Your task to perform on an android device: Go to Maps Image 0: 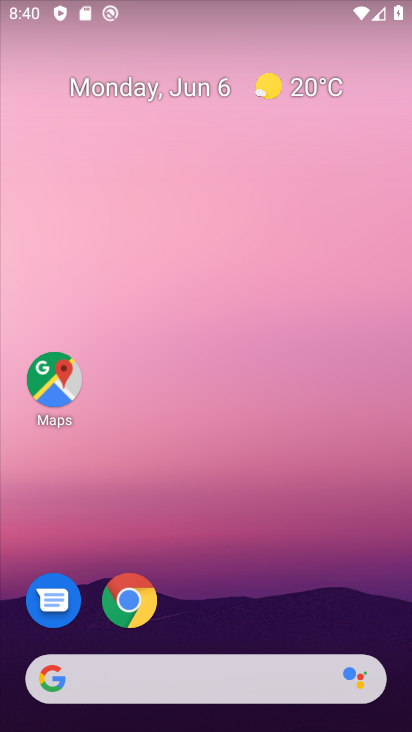
Step 0: click (75, 386)
Your task to perform on an android device: Go to Maps Image 1: 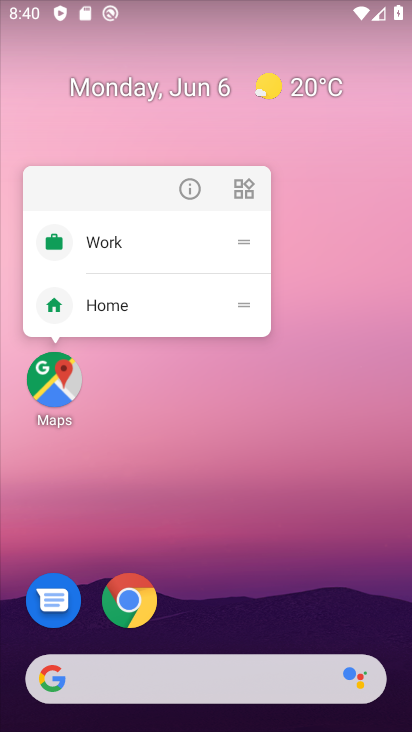
Step 1: click (50, 376)
Your task to perform on an android device: Go to Maps Image 2: 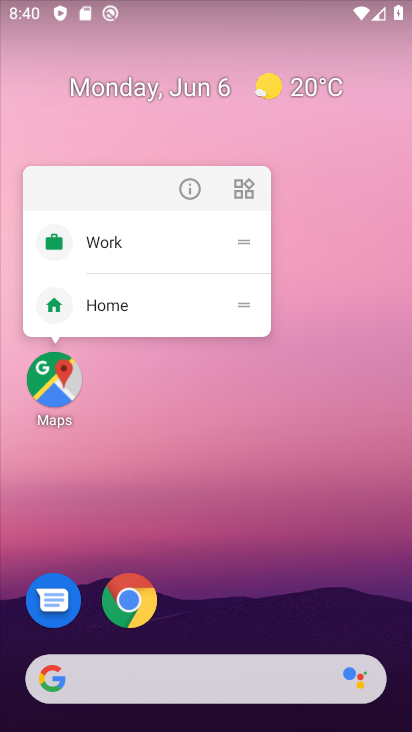
Step 2: click (50, 375)
Your task to perform on an android device: Go to Maps Image 3: 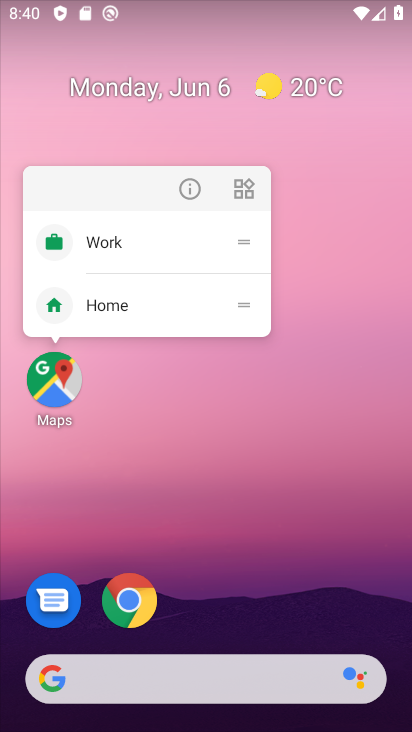
Step 3: click (50, 374)
Your task to perform on an android device: Go to Maps Image 4: 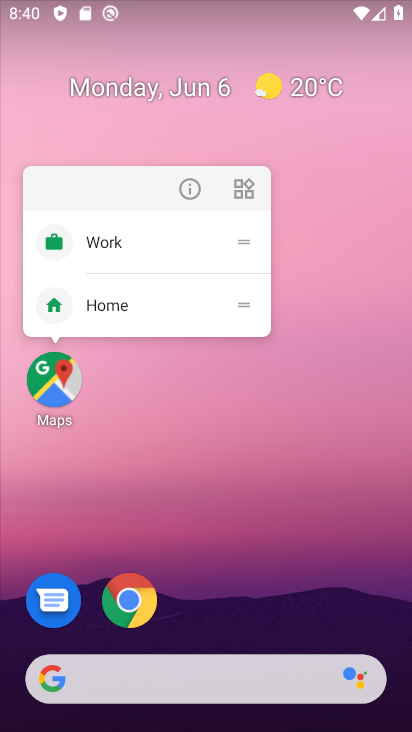
Step 4: click (50, 374)
Your task to perform on an android device: Go to Maps Image 5: 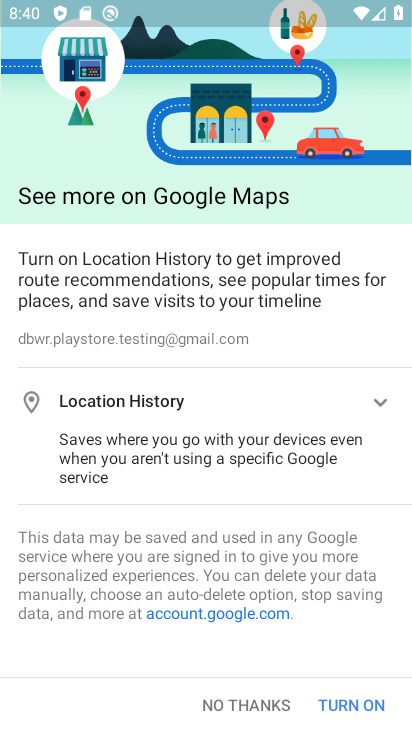
Step 5: click (240, 717)
Your task to perform on an android device: Go to Maps Image 6: 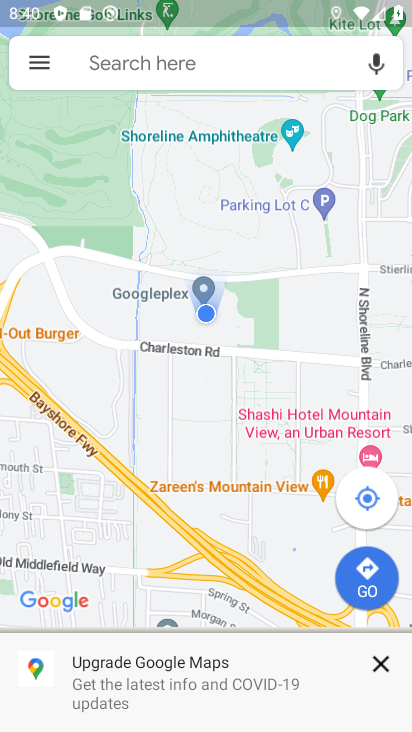
Step 6: task complete